Your task to perform on an android device: change the upload size in google photos Image 0: 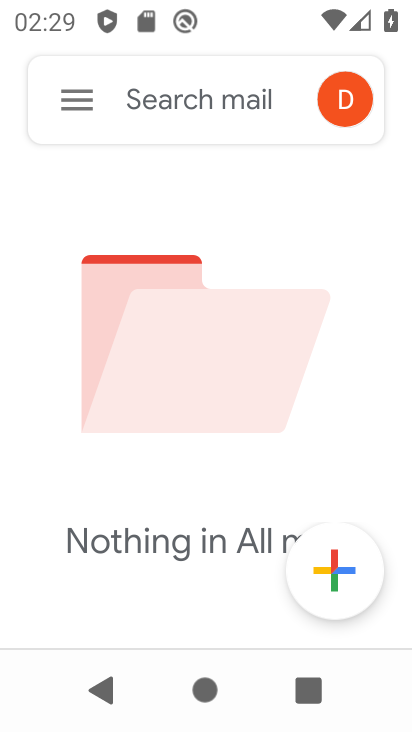
Step 0: press home button
Your task to perform on an android device: change the upload size in google photos Image 1: 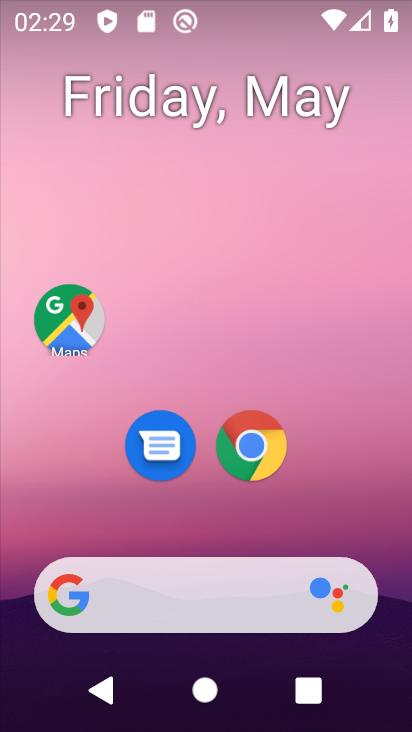
Step 1: drag from (98, 547) to (217, 123)
Your task to perform on an android device: change the upload size in google photos Image 2: 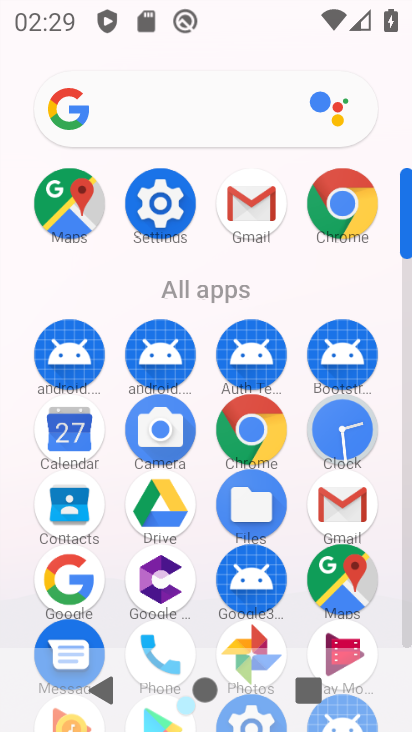
Step 2: drag from (210, 600) to (248, 429)
Your task to perform on an android device: change the upload size in google photos Image 3: 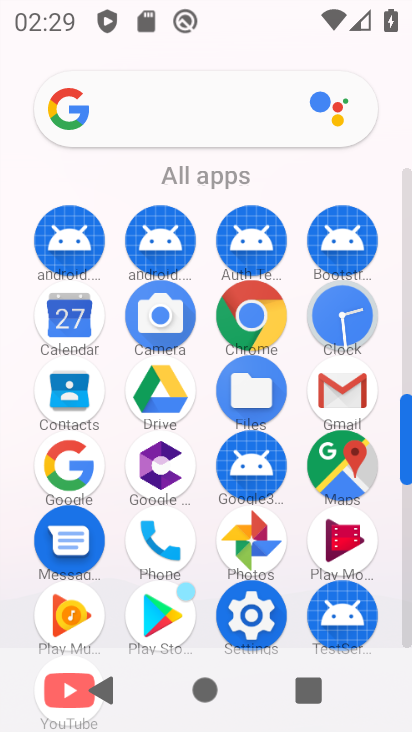
Step 3: click (244, 552)
Your task to perform on an android device: change the upload size in google photos Image 4: 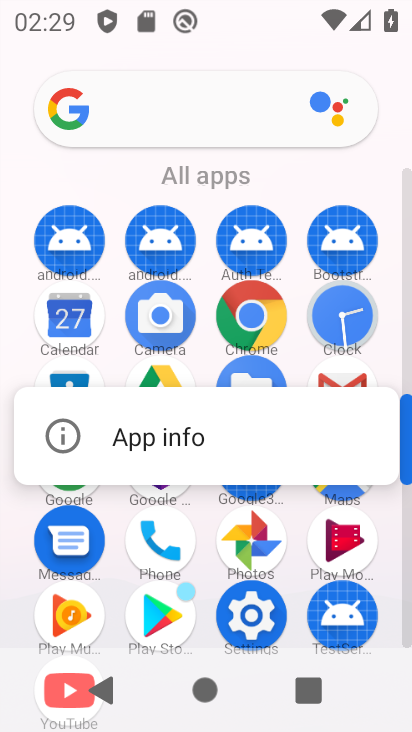
Step 4: click (248, 542)
Your task to perform on an android device: change the upload size in google photos Image 5: 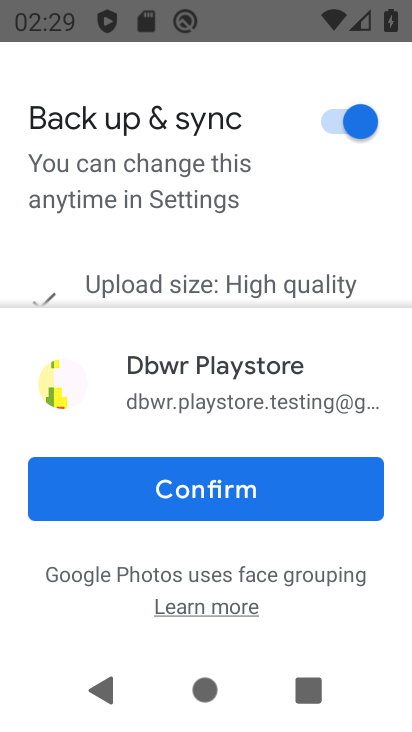
Step 5: click (240, 498)
Your task to perform on an android device: change the upload size in google photos Image 6: 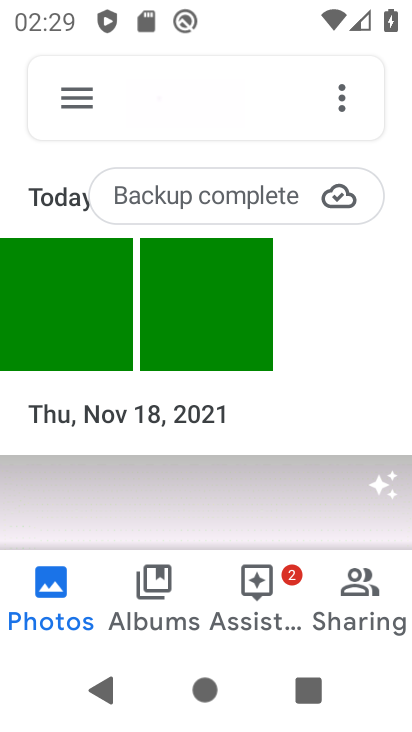
Step 6: click (56, 89)
Your task to perform on an android device: change the upload size in google photos Image 7: 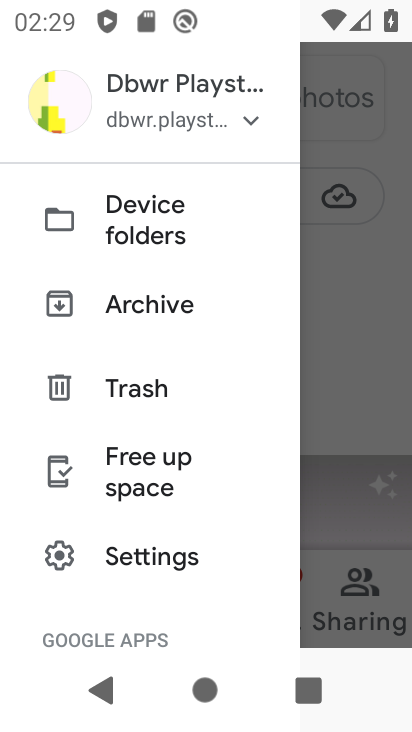
Step 7: drag from (152, 530) to (238, 200)
Your task to perform on an android device: change the upload size in google photos Image 8: 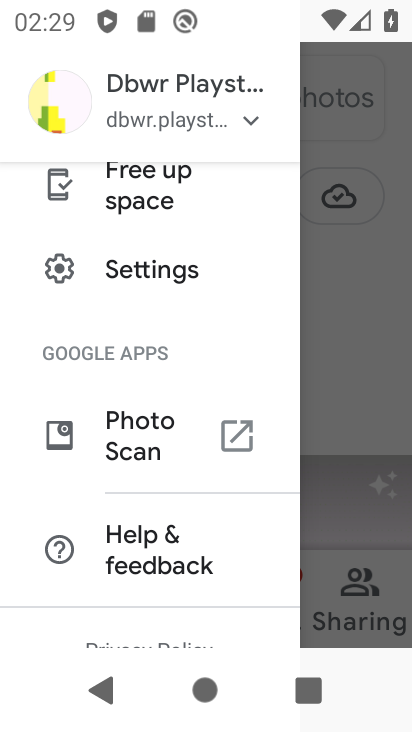
Step 8: click (175, 279)
Your task to perform on an android device: change the upload size in google photos Image 9: 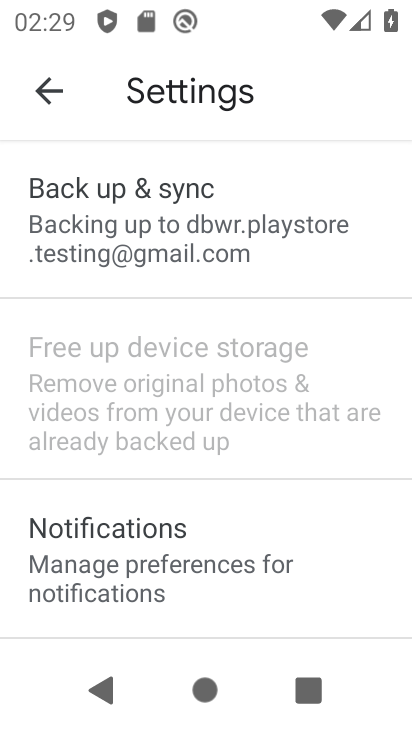
Step 9: click (232, 218)
Your task to perform on an android device: change the upload size in google photos Image 10: 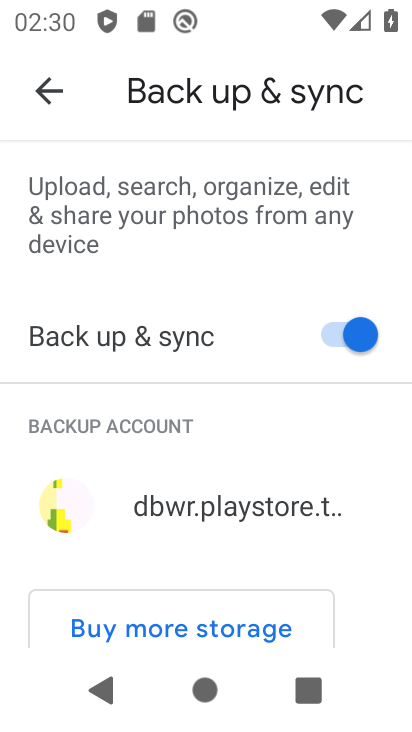
Step 10: drag from (190, 439) to (326, 58)
Your task to perform on an android device: change the upload size in google photos Image 11: 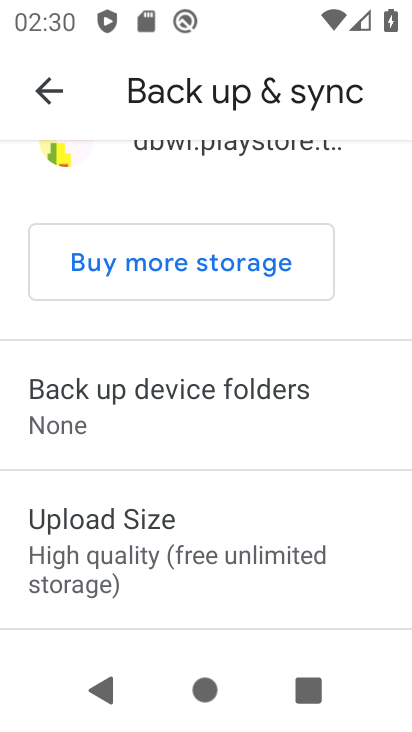
Step 11: click (182, 546)
Your task to perform on an android device: change the upload size in google photos Image 12: 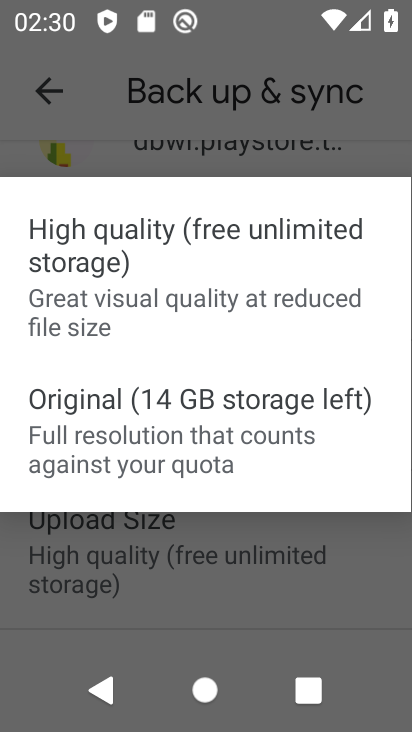
Step 12: drag from (236, 291) to (224, 419)
Your task to perform on an android device: change the upload size in google photos Image 13: 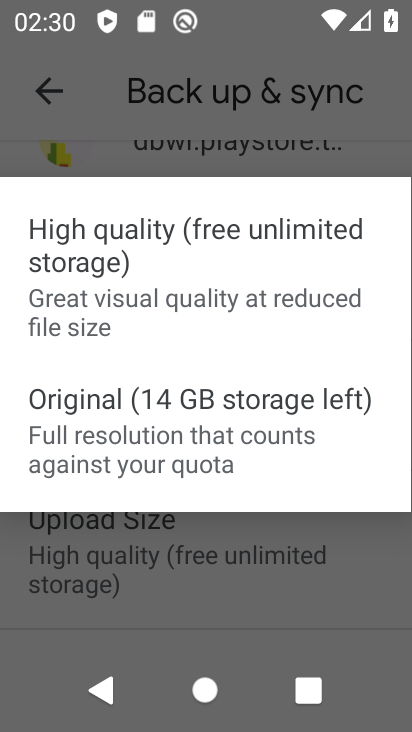
Step 13: click (218, 420)
Your task to perform on an android device: change the upload size in google photos Image 14: 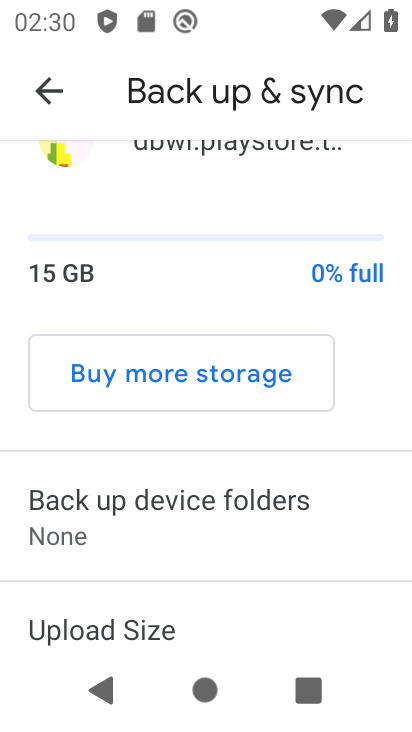
Step 14: task complete